Your task to perform on an android device: turn off picture-in-picture Image 0: 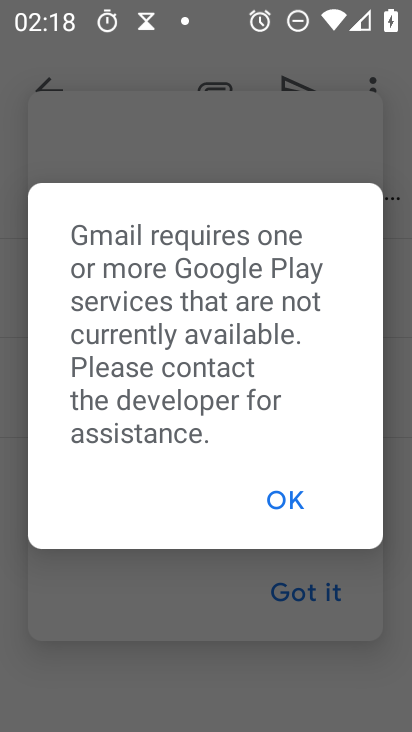
Step 0: press home button
Your task to perform on an android device: turn off picture-in-picture Image 1: 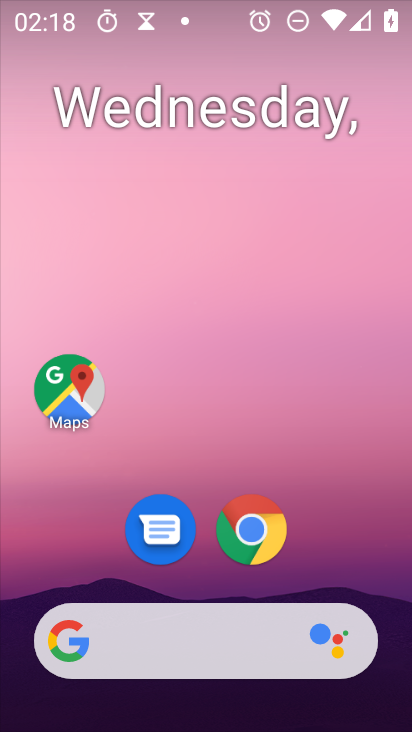
Step 1: drag from (277, 695) to (335, 75)
Your task to perform on an android device: turn off picture-in-picture Image 2: 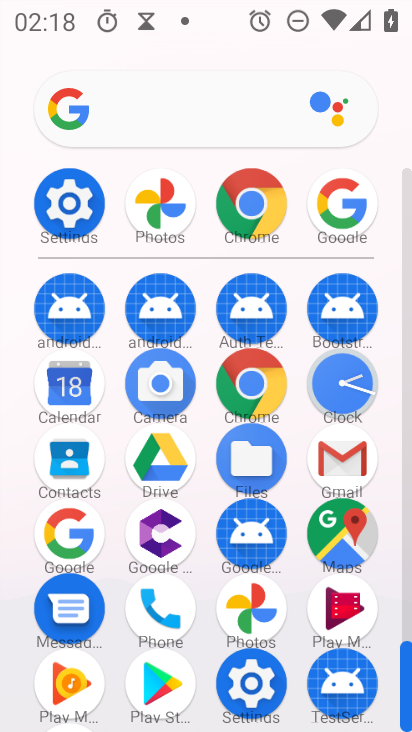
Step 2: click (83, 200)
Your task to perform on an android device: turn off picture-in-picture Image 3: 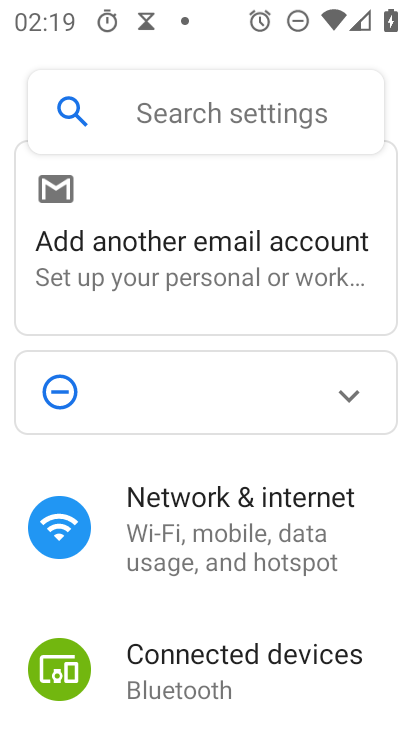
Step 3: drag from (265, 693) to (301, 81)
Your task to perform on an android device: turn off picture-in-picture Image 4: 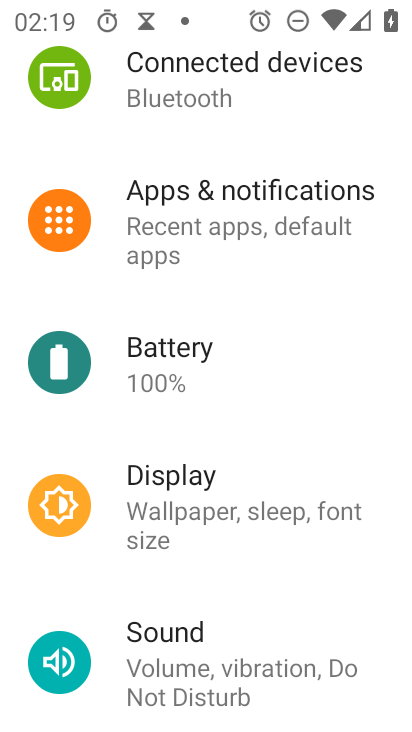
Step 4: click (241, 204)
Your task to perform on an android device: turn off picture-in-picture Image 5: 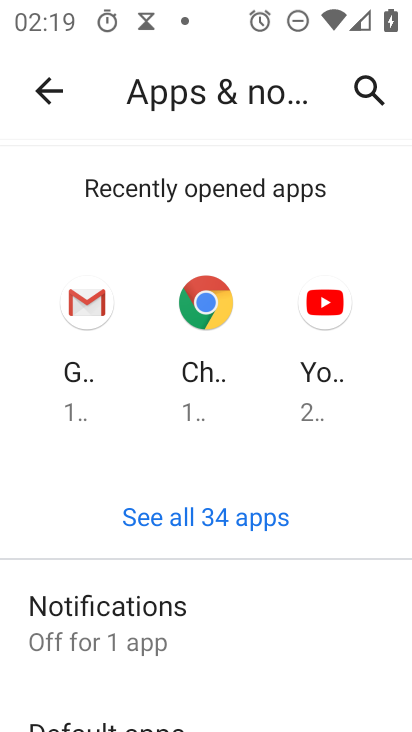
Step 5: drag from (219, 708) to (221, 187)
Your task to perform on an android device: turn off picture-in-picture Image 6: 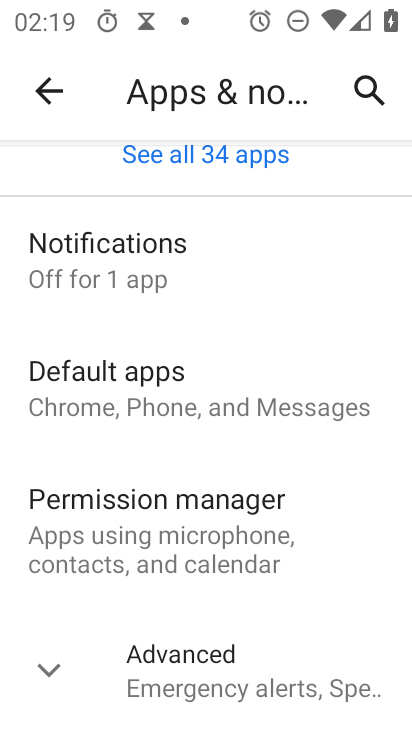
Step 6: click (153, 644)
Your task to perform on an android device: turn off picture-in-picture Image 7: 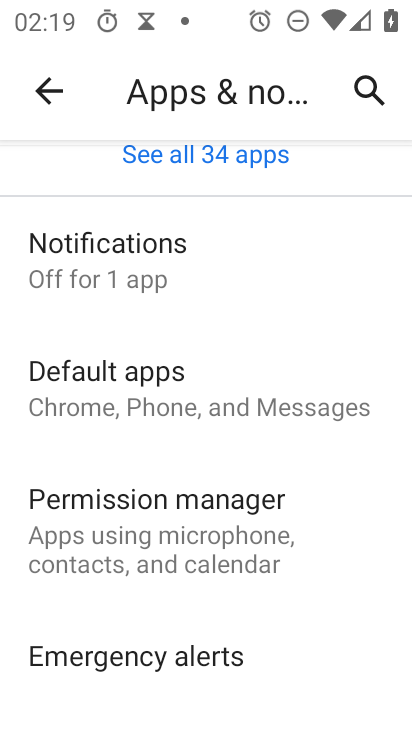
Step 7: click (153, 241)
Your task to perform on an android device: turn off picture-in-picture Image 8: 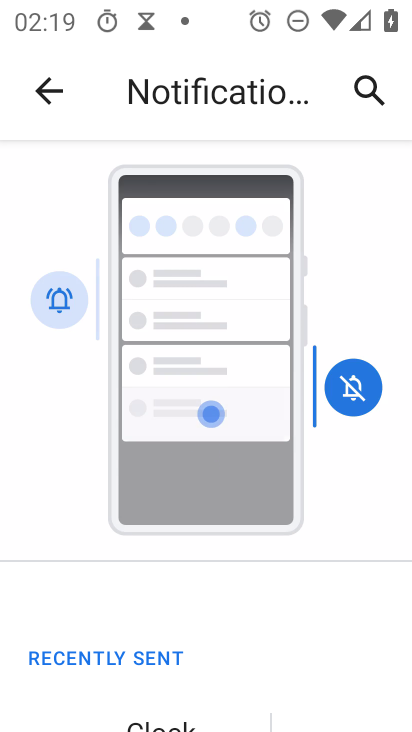
Step 8: press back button
Your task to perform on an android device: turn off picture-in-picture Image 9: 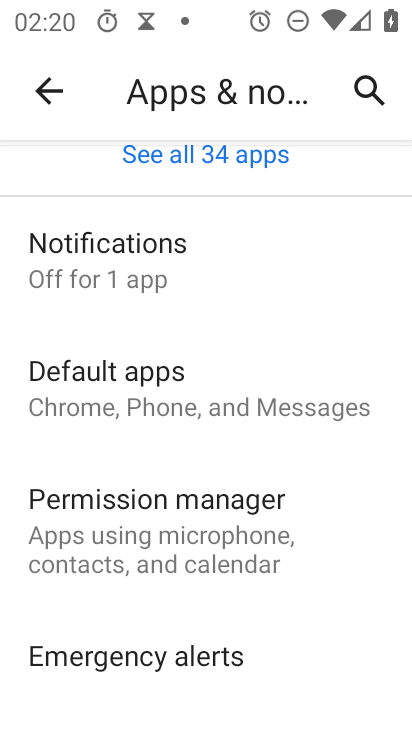
Step 9: drag from (274, 701) to (258, 201)
Your task to perform on an android device: turn off picture-in-picture Image 10: 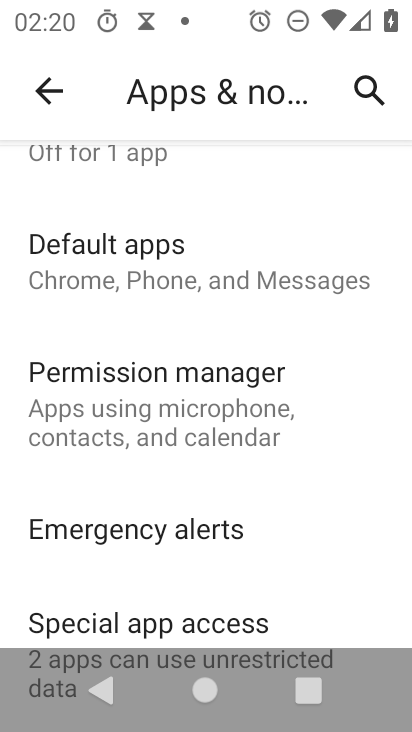
Step 10: click (202, 622)
Your task to perform on an android device: turn off picture-in-picture Image 11: 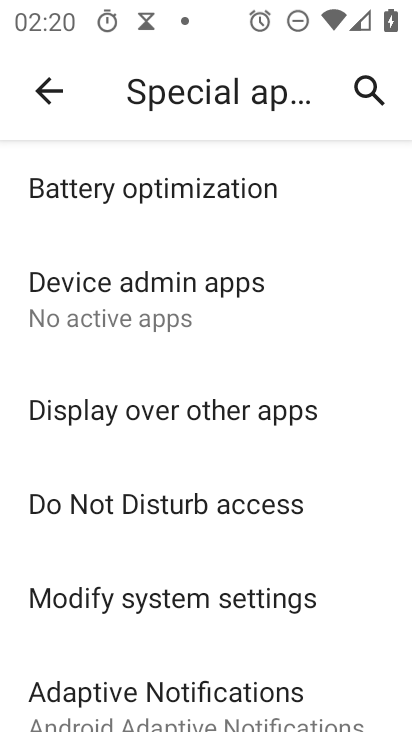
Step 11: drag from (224, 675) to (242, 50)
Your task to perform on an android device: turn off picture-in-picture Image 12: 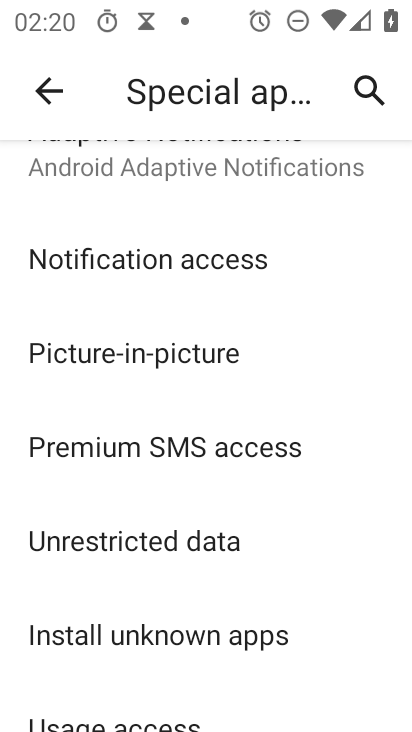
Step 12: click (172, 356)
Your task to perform on an android device: turn off picture-in-picture Image 13: 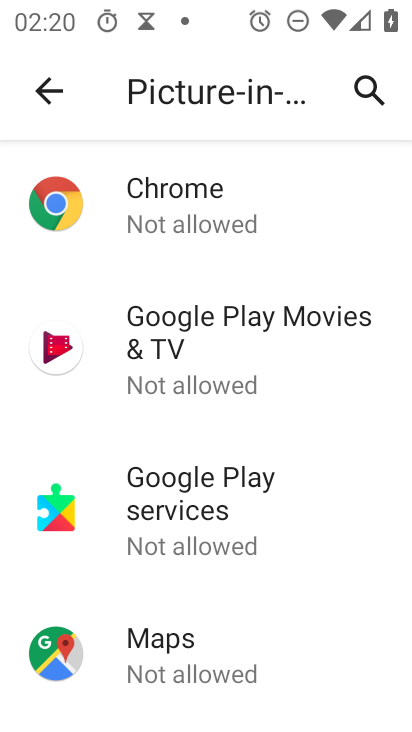
Step 13: task complete